Your task to perform on an android device: turn off javascript in the chrome app Image 0: 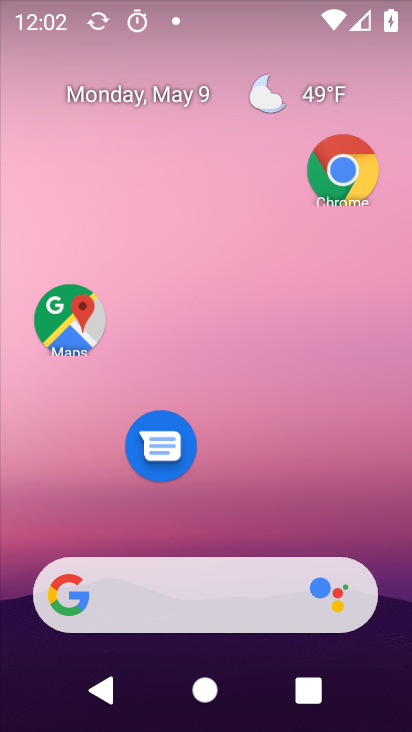
Step 0: task complete